Your task to perform on an android device: Search for pizza restaurants on Maps Image 0: 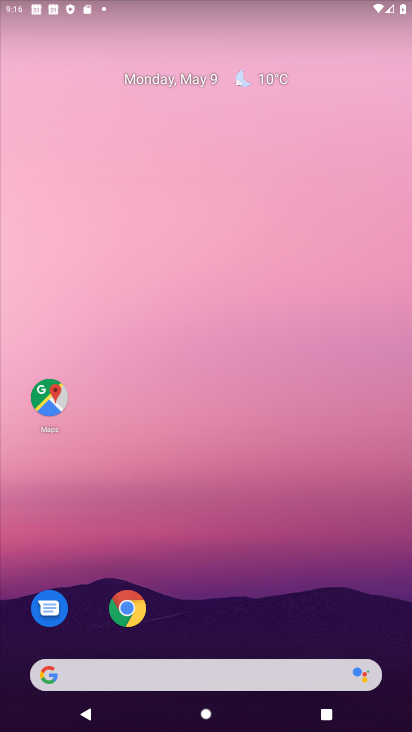
Step 0: drag from (325, 542) to (349, 70)
Your task to perform on an android device: Search for pizza restaurants on Maps Image 1: 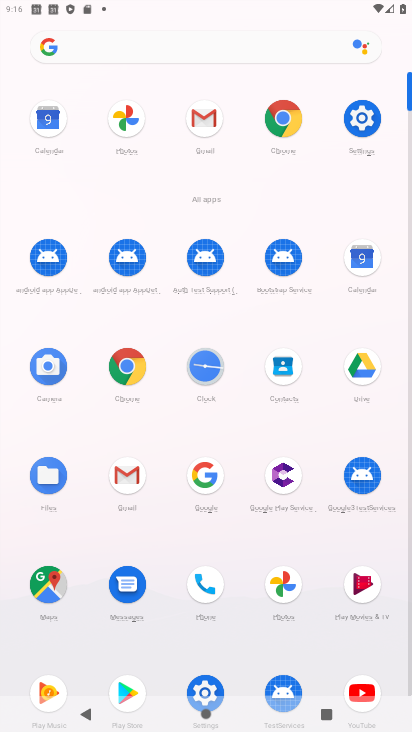
Step 1: click (64, 579)
Your task to perform on an android device: Search for pizza restaurants on Maps Image 2: 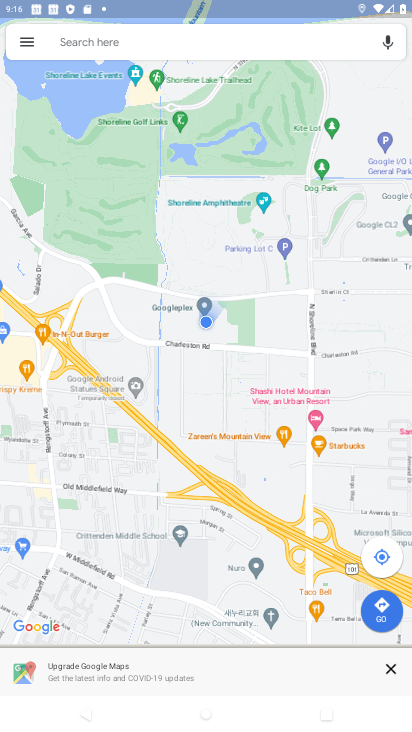
Step 2: click (139, 38)
Your task to perform on an android device: Search for pizza restaurants on Maps Image 3: 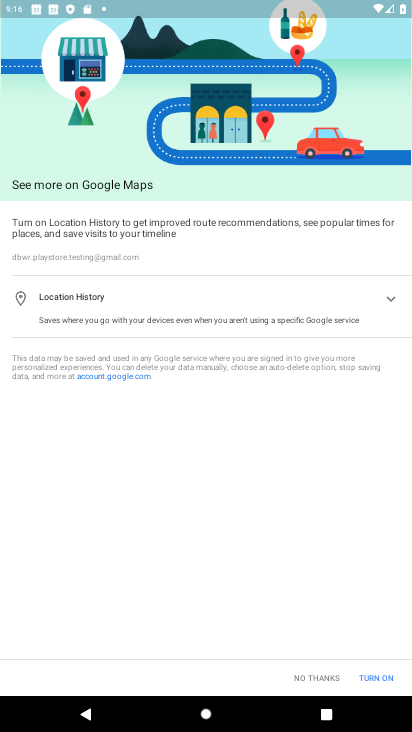
Step 3: click (325, 670)
Your task to perform on an android device: Search for pizza restaurants on Maps Image 4: 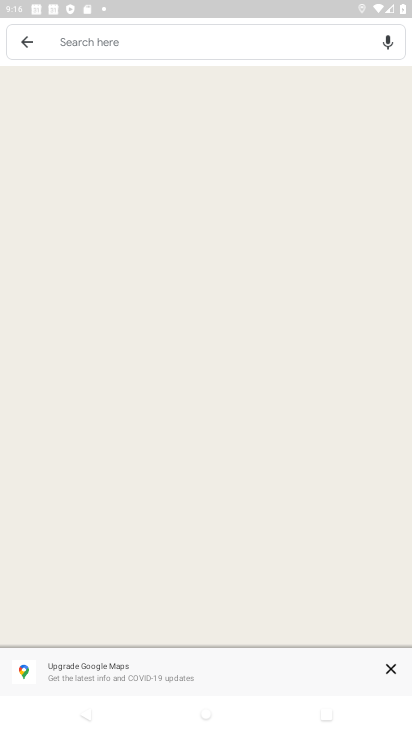
Step 4: click (173, 36)
Your task to perform on an android device: Search for pizza restaurants on Maps Image 5: 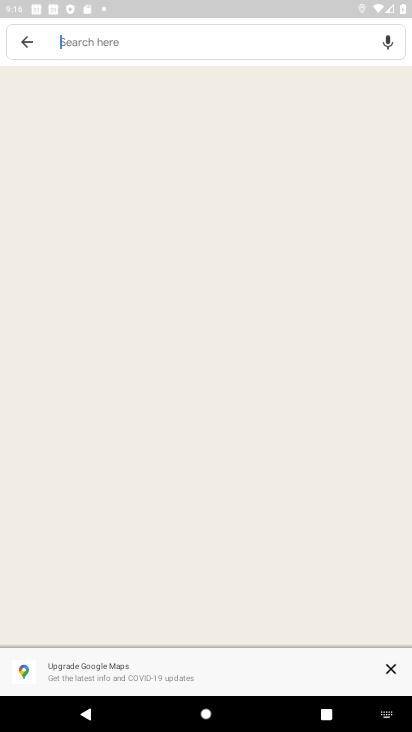
Step 5: type "pizza resturenst"
Your task to perform on an android device: Search for pizza restaurants on Maps Image 6: 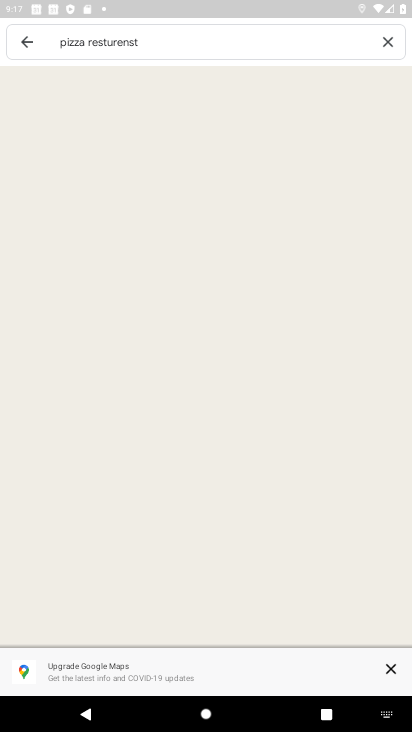
Step 6: click (184, 36)
Your task to perform on an android device: Search for pizza restaurants on Maps Image 7: 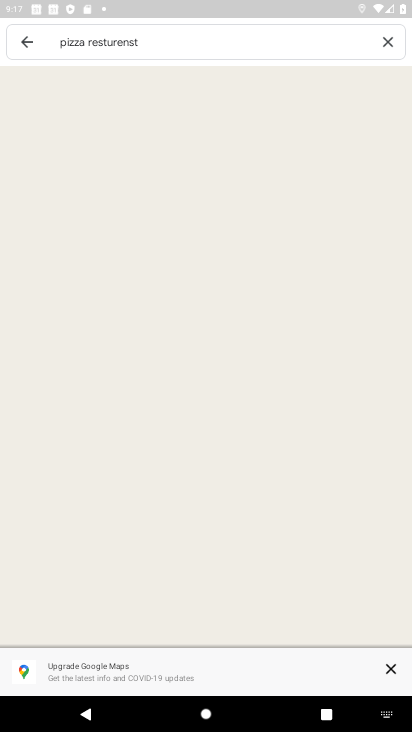
Step 7: press enter
Your task to perform on an android device: Search for pizza restaurants on Maps Image 8: 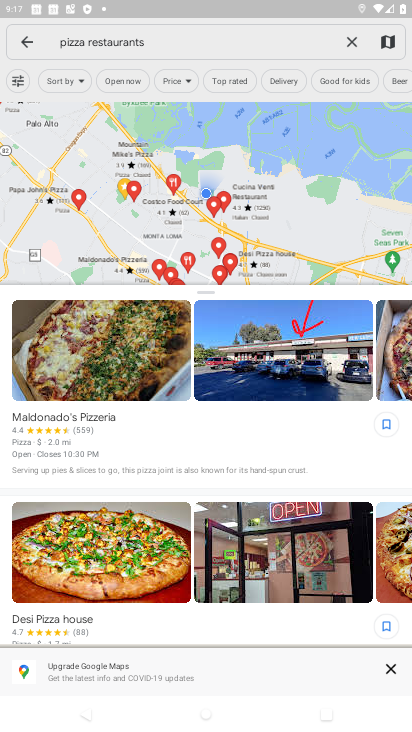
Step 8: task complete